Your task to perform on an android device: When is my next meeting? Image 0: 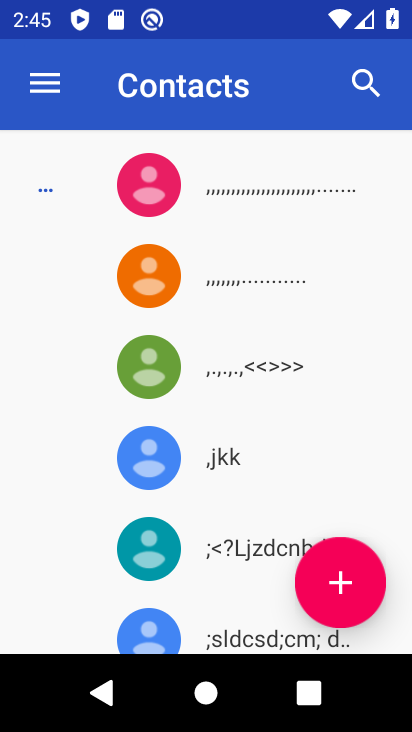
Step 0: press home button
Your task to perform on an android device: When is my next meeting? Image 1: 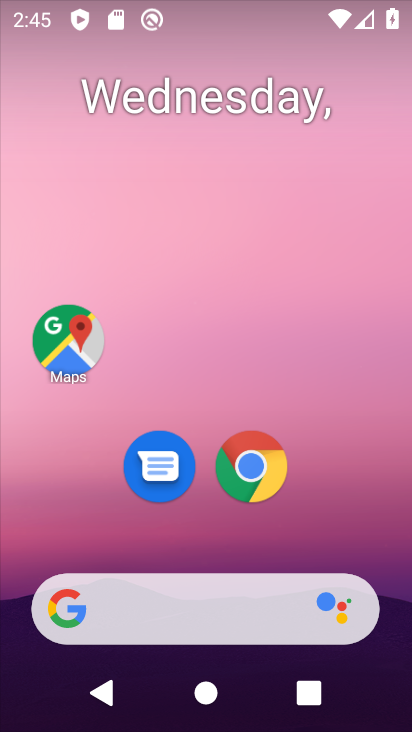
Step 1: drag from (387, 603) to (300, 103)
Your task to perform on an android device: When is my next meeting? Image 2: 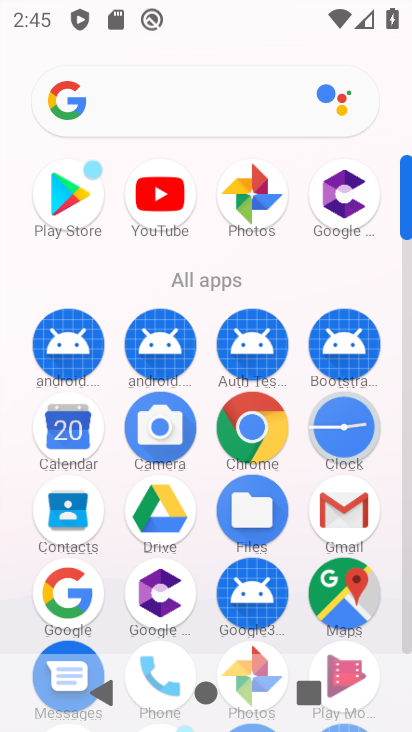
Step 2: click (400, 635)
Your task to perform on an android device: When is my next meeting? Image 3: 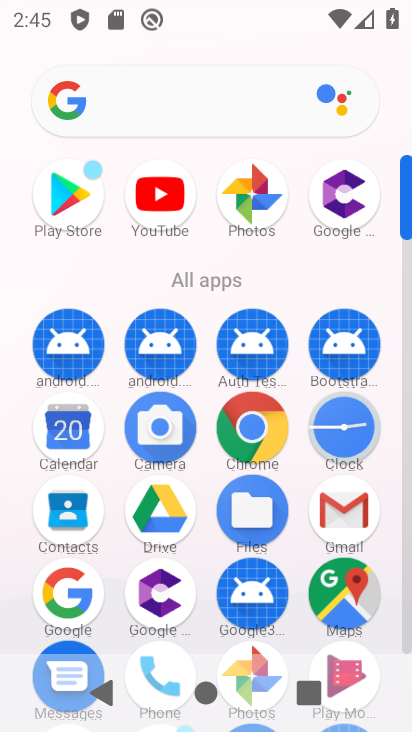
Step 3: click (404, 636)
Your task to perform on an android device: When is my next meeting? Image 4: 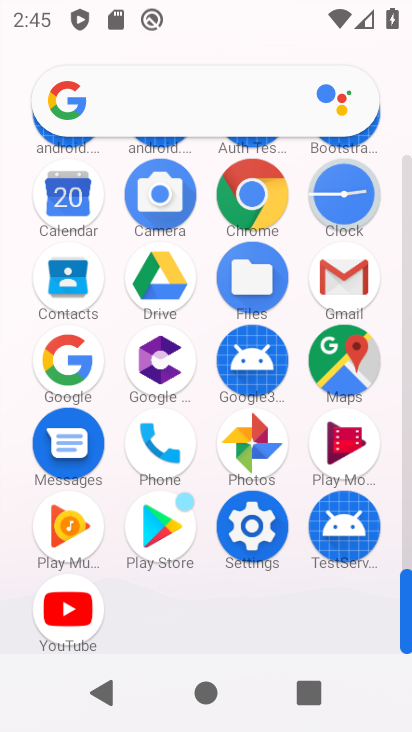
Step 4: click (66, 193)
Your task to perform on an android device: When is my next meeting? Image 5: 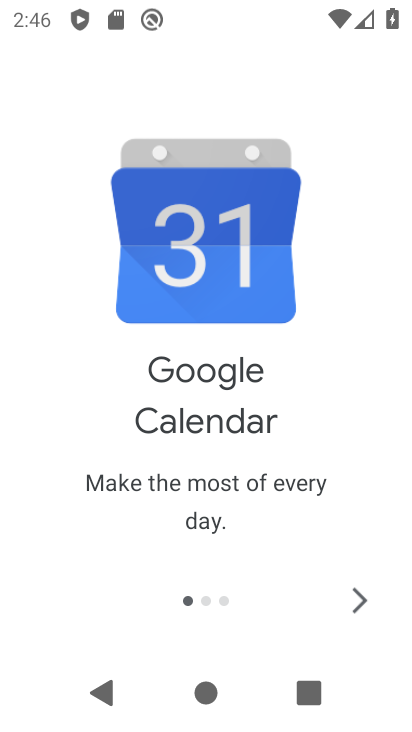
Step 5: click (358, 599)
Your task to perform on an android device: When is my next meeting? Image 6: 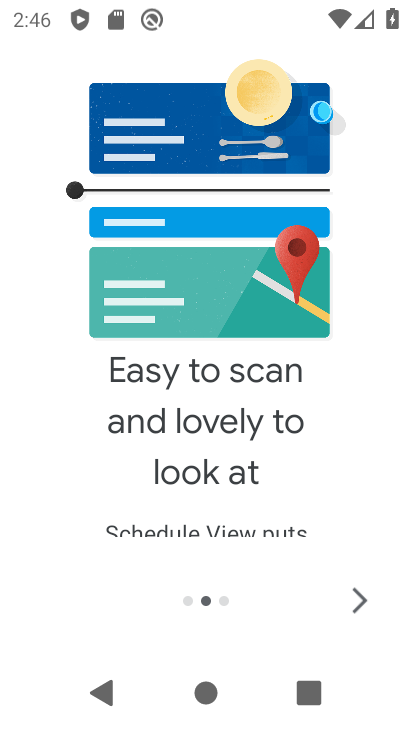
Step 6: click (358, 599)
Your task to perform on an android device: When is my next meeting? Image 7: 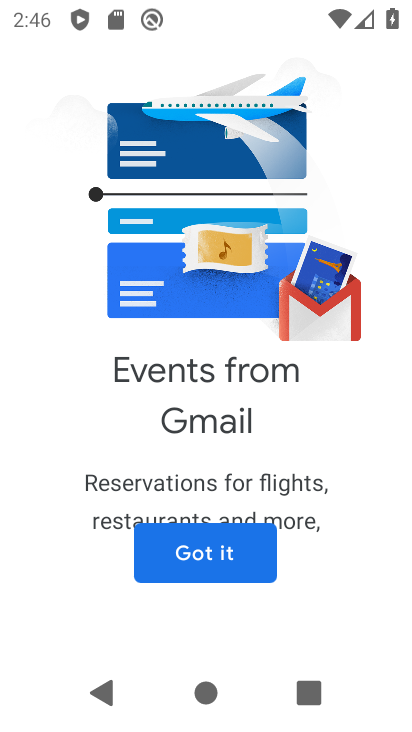
Step 7: click (203, 548)
Your task to perform on an android device: When is my next meeting? Image 8: 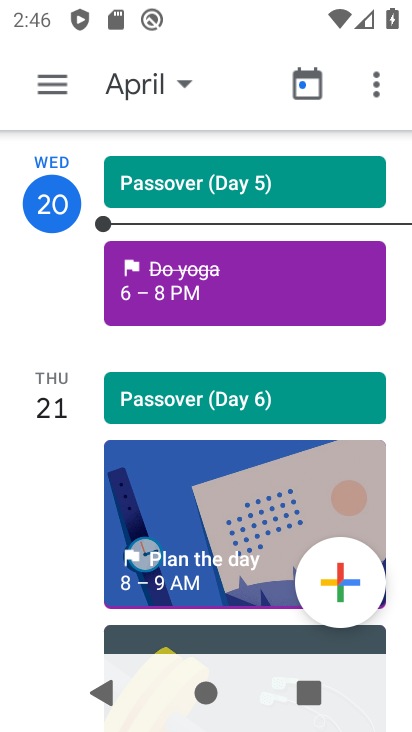
Step 8: click (175, 83)
Your task to perform on an android device: When is my next meeting? Image 9: 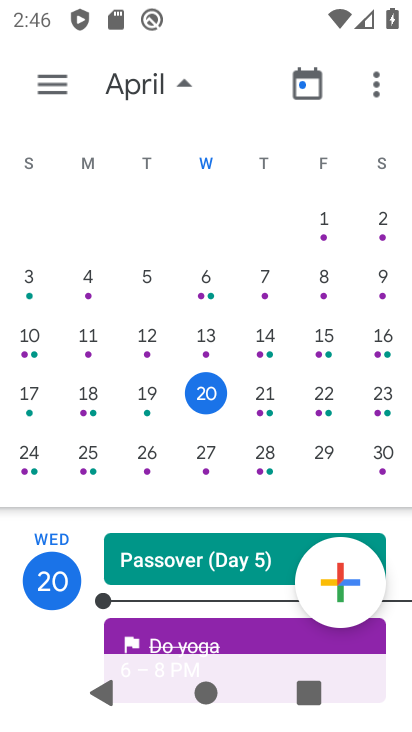
Step 9: click (60, 87)
Your task to perform on an android device: When is my next meeting? Image 10: 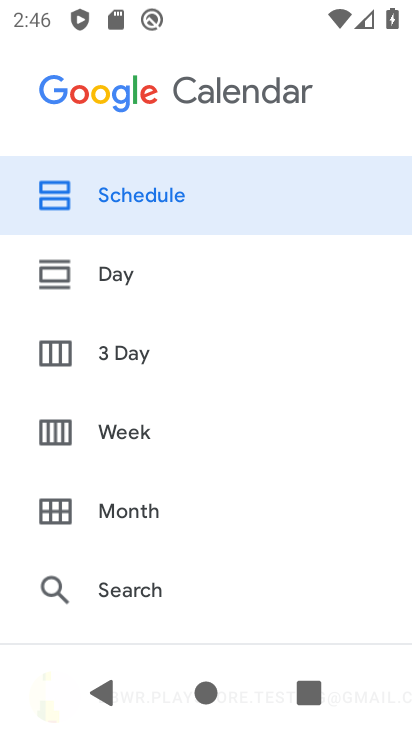
Step 10: click (140, 188)
Your task to perform on an android device: When is my next meeting? Image 11: 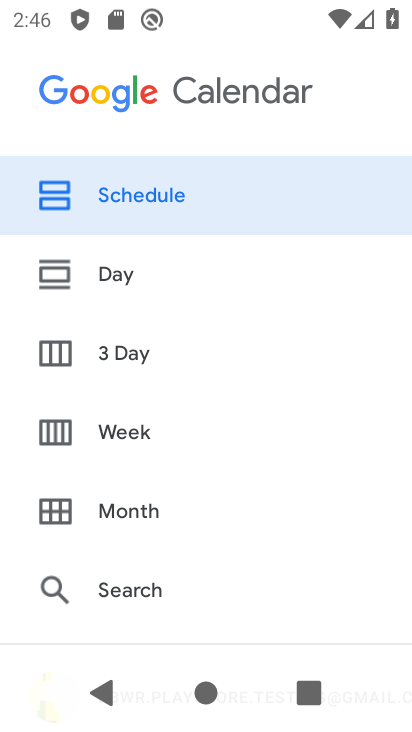
Step 11: click (169, 196)
Your task to perform on an android device: When is my next meeting? Image 12: 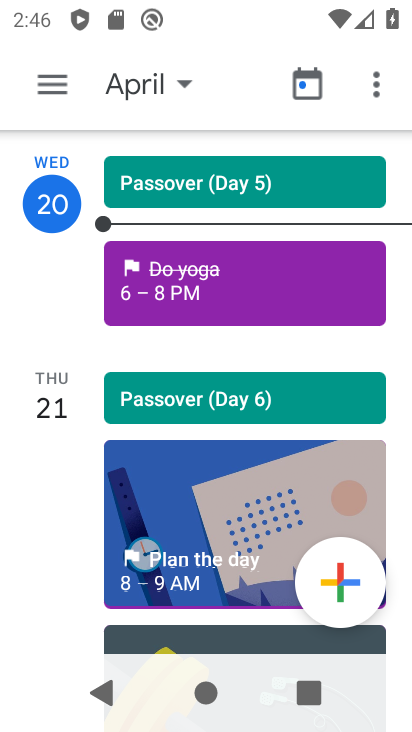
Step 12: task complete